Your task to perform on an android device: turn smart compose on in the gmail app Image 0: 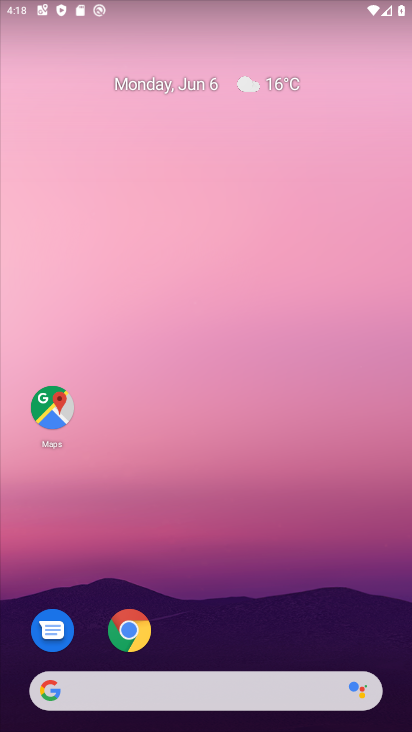
Step 0: drag from (180, 613) to (299, 22)
Your task to perform on an android device: turn smart compose on in the gmail app Image 1: 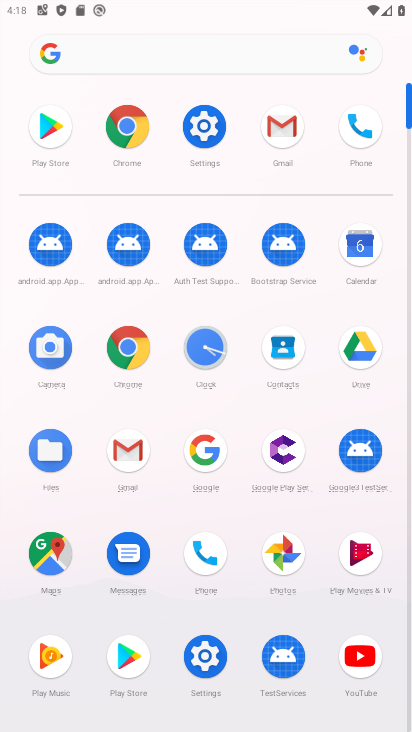
Step 1: click (267, 125)
Your task to perform on an android device: turn smart compose on in the gmail app Image 2: 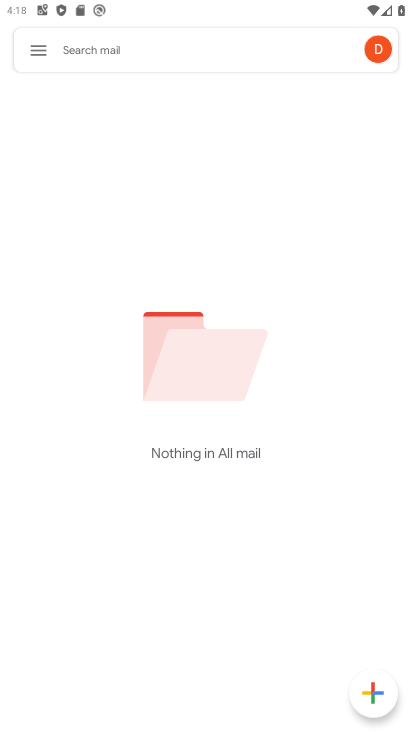
Step 2: click (34, 52)
Your task to perform on an android device: turn smart compose on in the gmail app Image 3: 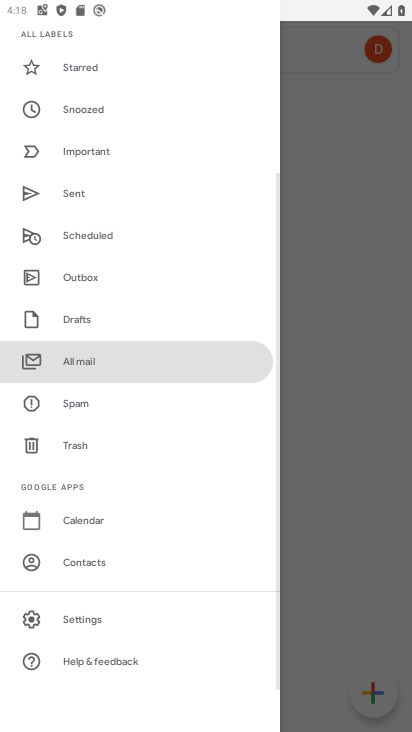
Step 3: click (92, 622)
Your task to perform on an android device: turn smart compose on in the gmail app Image 4: 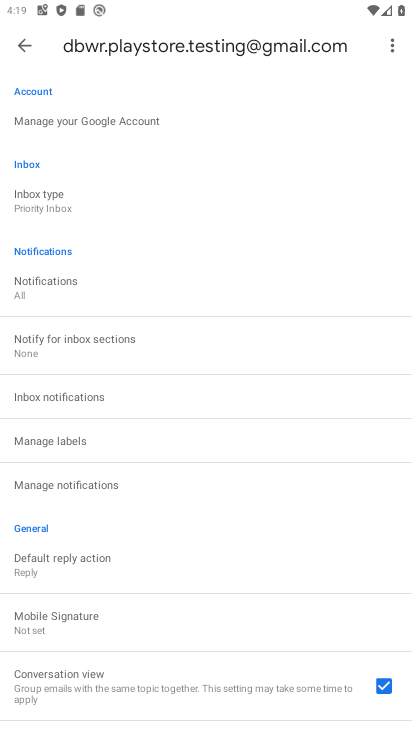
Step 4: task complete